Your task to perform on an android device: Check the news Image 0: 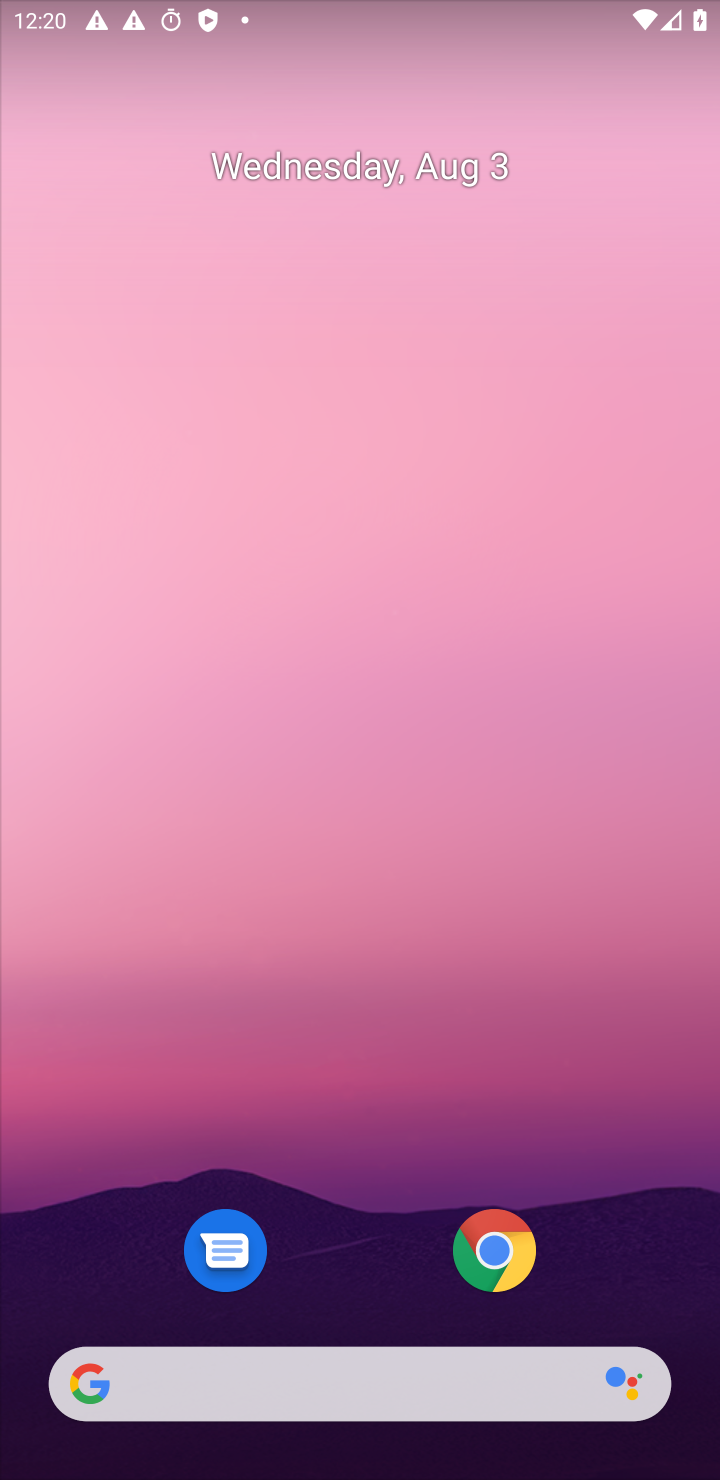
Step 0: click (318, 1380)
Your task to perform on an android device: Check the news Image 1: 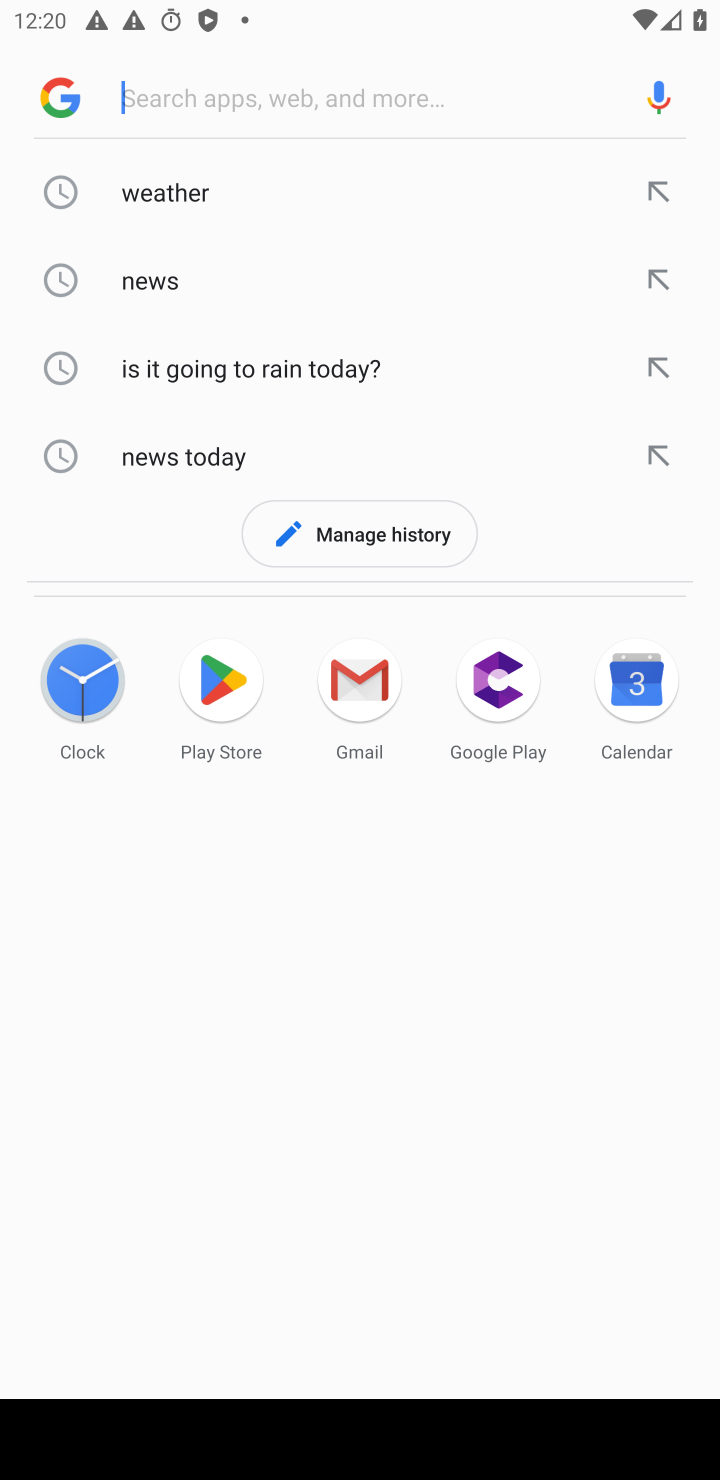
Step 1: type "news"
Your task to perform on an android device: Check the news Image 2: 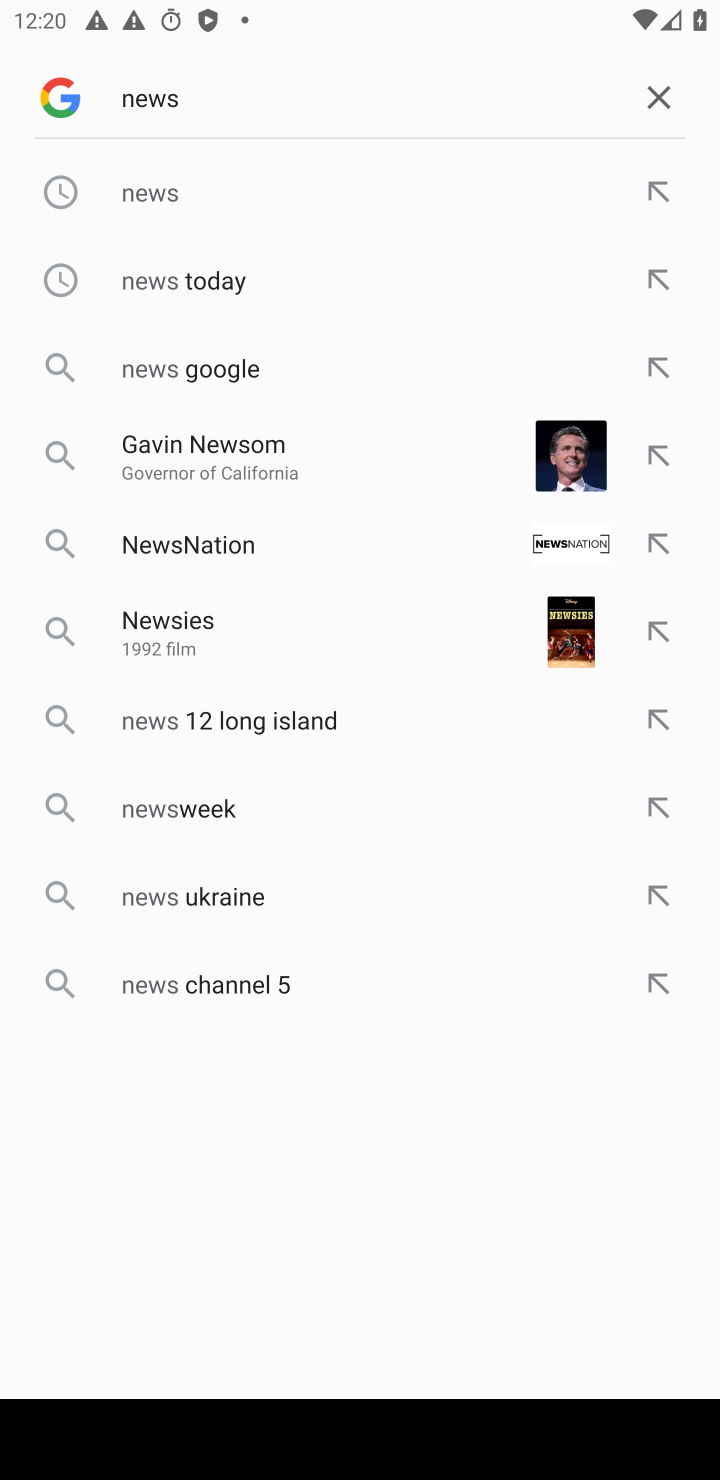
Step 2: click (287, 204)
Your task to perform on an android device: Check the news Image 3: 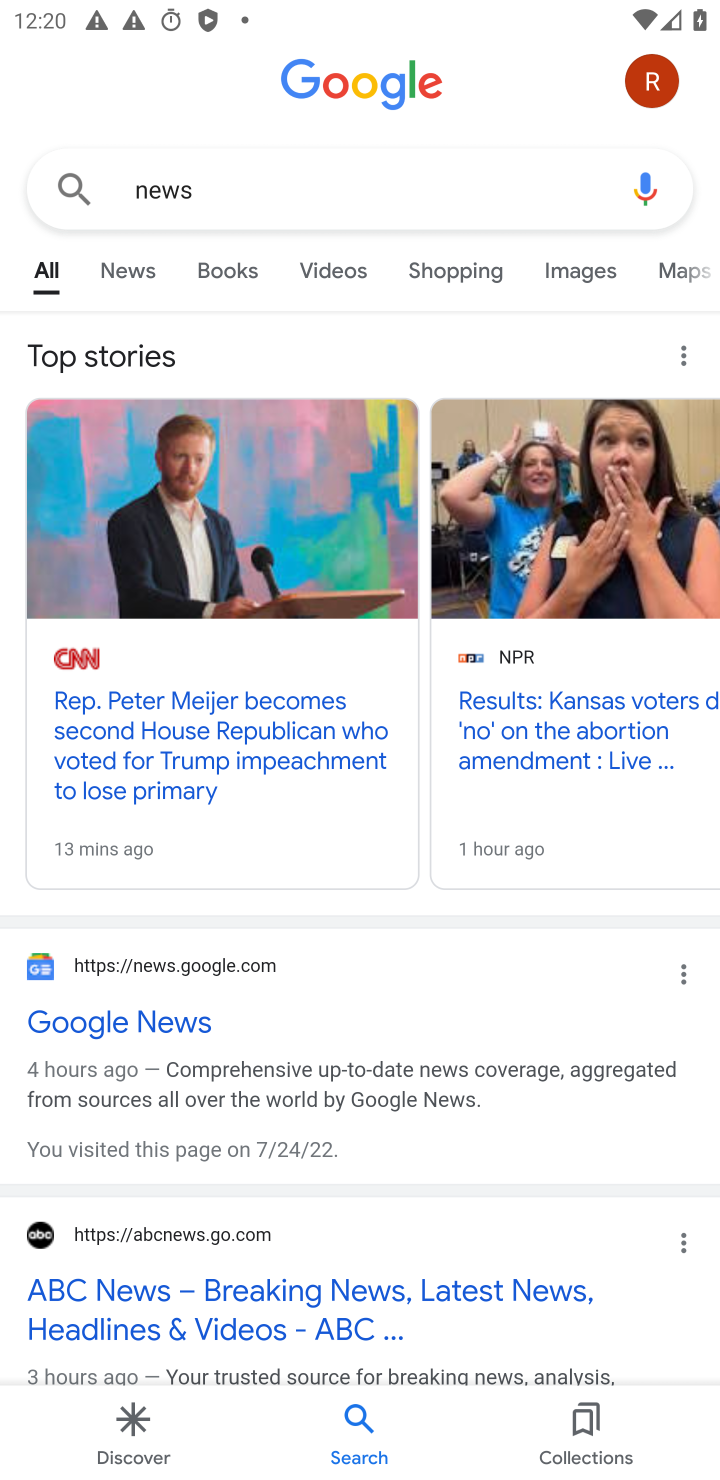
Step 3: click (140, 278)
Your task to perform on an android device: Check the news Image 4: 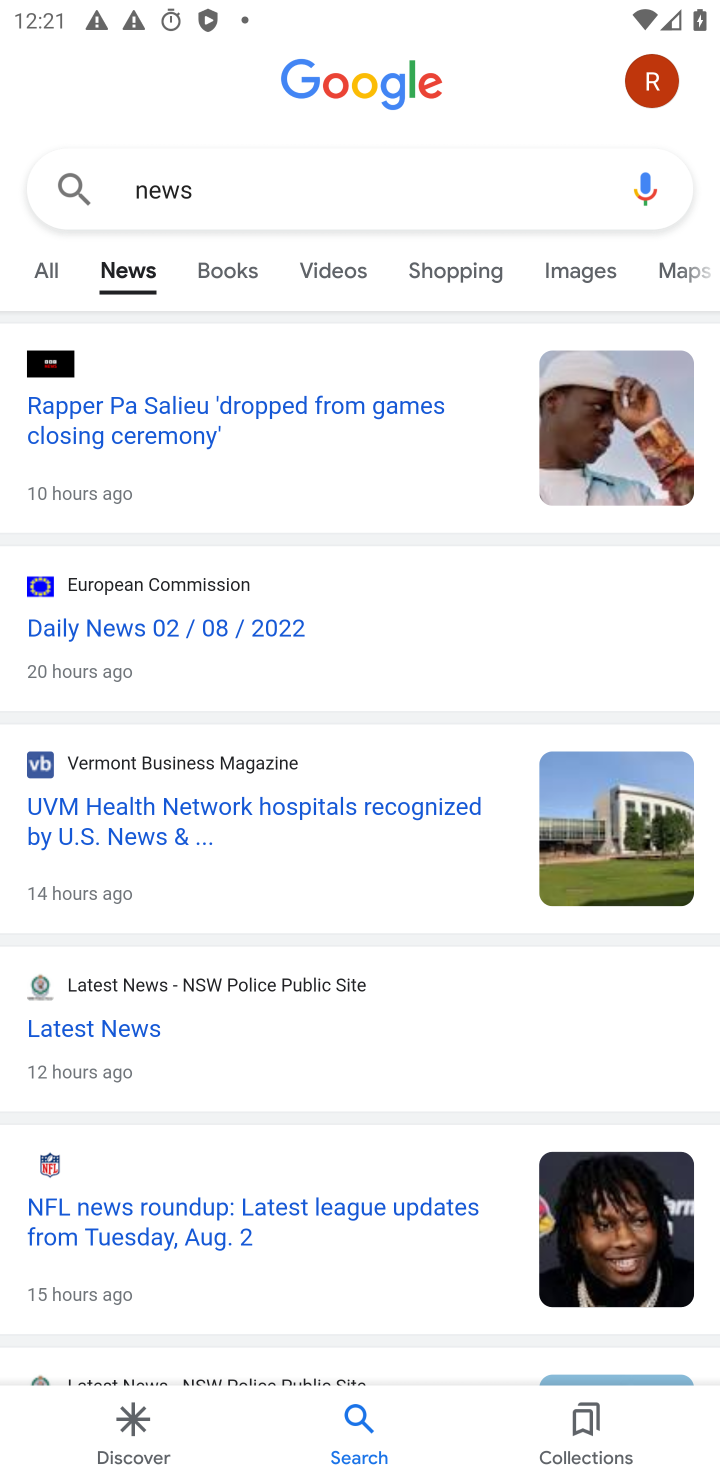
Step 4: task complete